Your task to perform on an android device: Show me the alarms in the clock app Image 0: 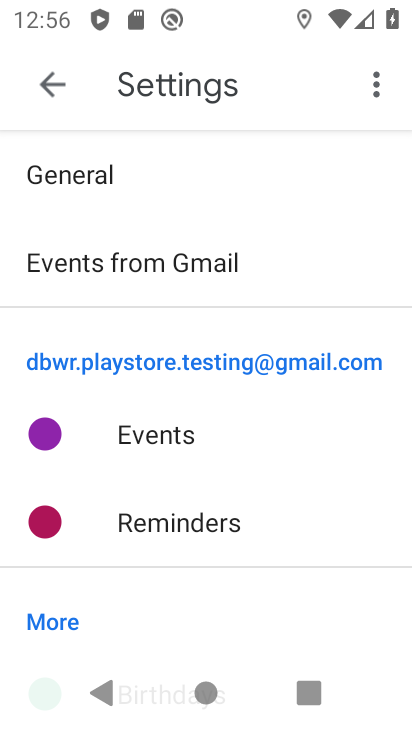
Step 0: press home button
Your task to perform on an android device: Show me the alarms in the clock app Image 1: 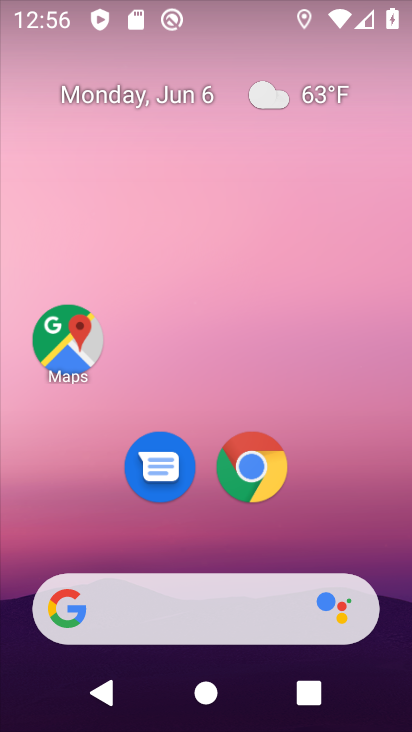
Step 1: drag from (383, 626) to (152, 43)
Your task to perform on an android device: Show me the alarms in the clock app Image 2: 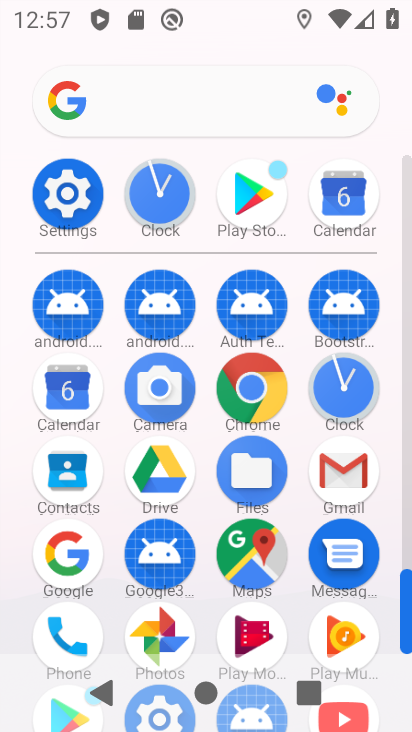
Step 2: click (347, 389)
Your task to perform on an android device: Show me the alarms in the clock app Image 3: 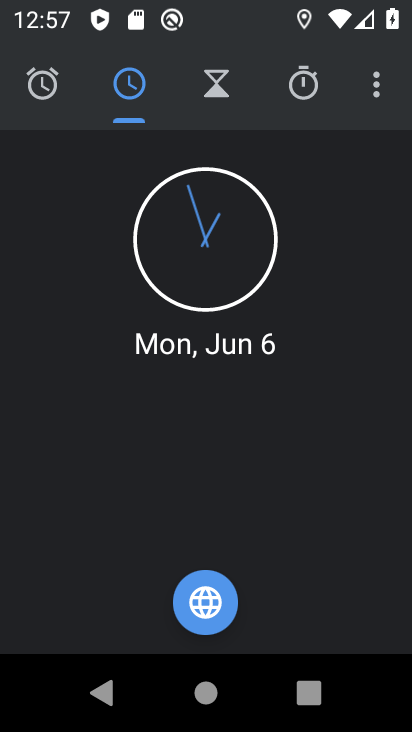
Step 3: click (380, 78)
Your task to perform on an android device: Show me the alarms in the clock app Image 4: 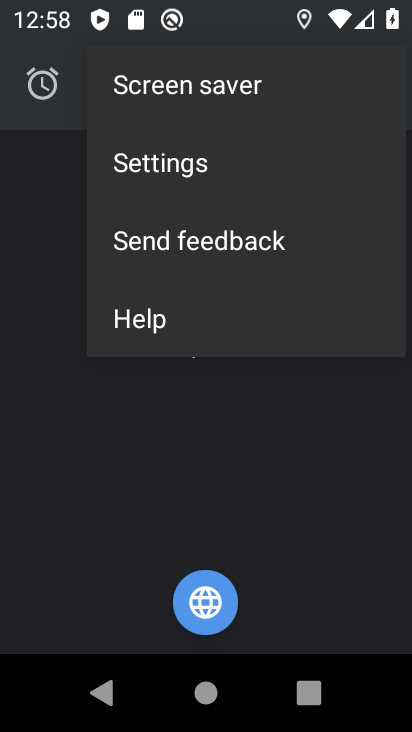
Step 4: click (47, 81)
Your task to perform on an android device: Show me the alarms in the clock app Image 5: 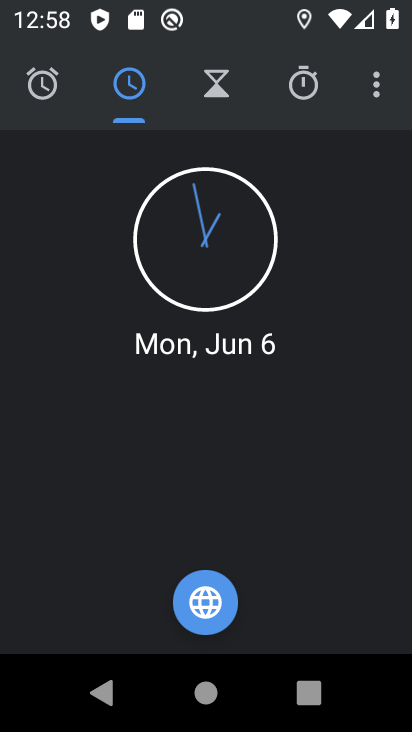
Step 5: click (47, 81)
Your task to perform on an android device: Show me the alarms in the clock app Image 6: 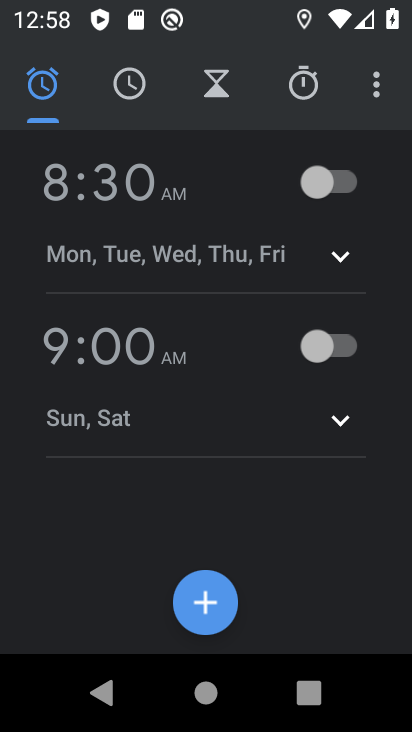
Step 6: task complete